Your task to perform on an android device: search for starred emails in the gmail app Image 0: 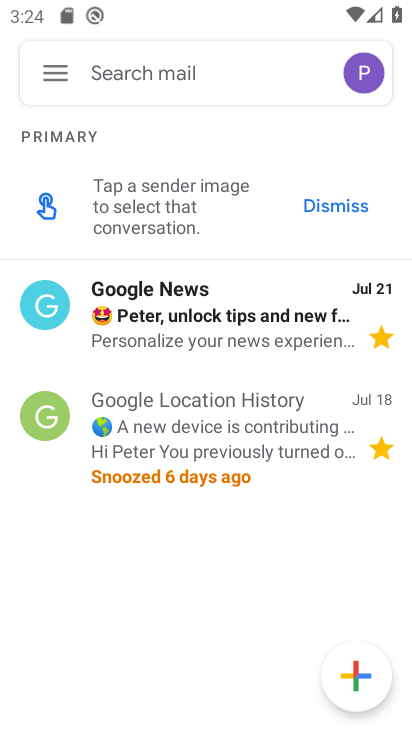
Step 0: click (48, 67)
Your task to perform on an android device: search for starred emails in the gmail app Image 1: 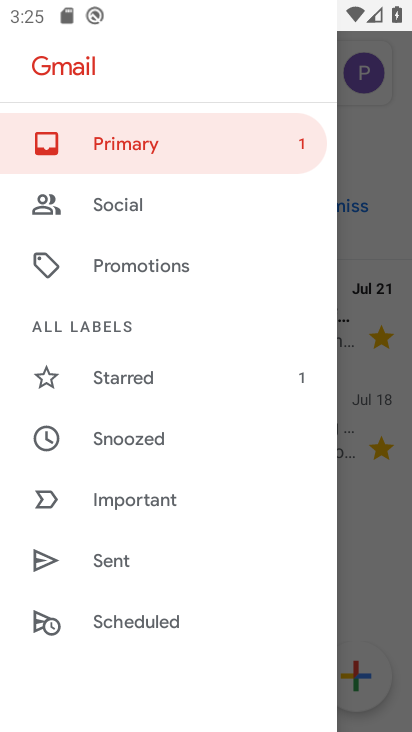
Step 1: click (157, 370)
Your task to perform on an android device: search for starred emails in the gmail app Image 2: 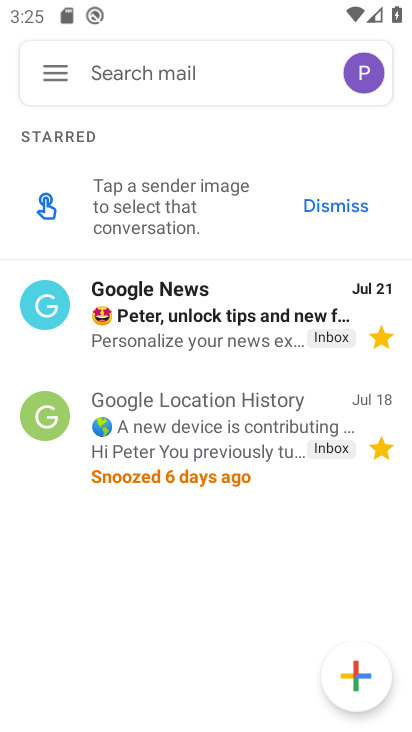
Step 2: task complete